Your task to perform on an android device: change the clock display to analog Image 0: 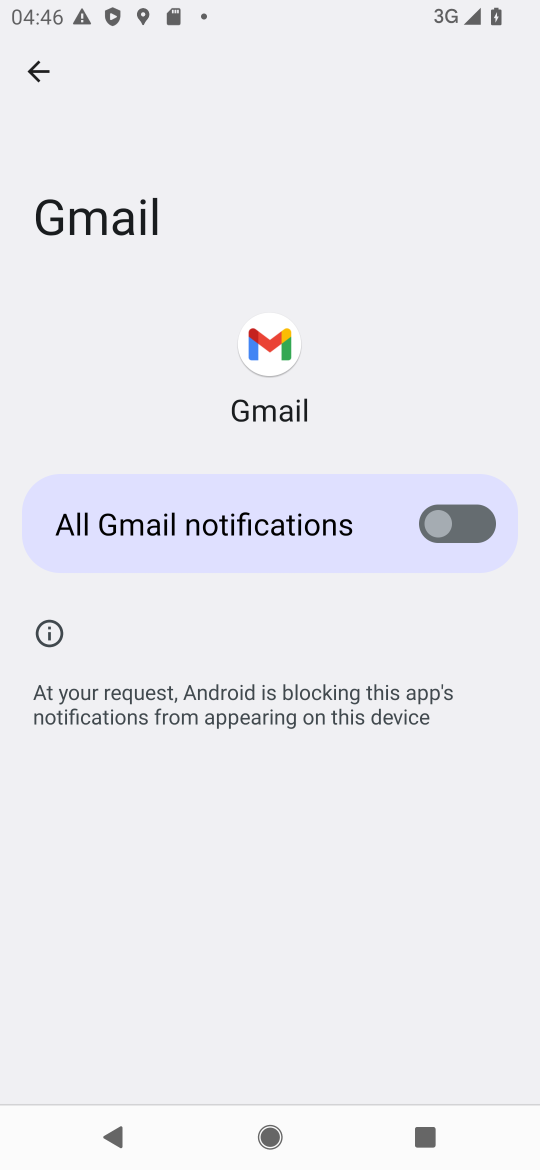
Step 0: press home button
Your task to perform on an android device: change the clock display to analog Image 1: 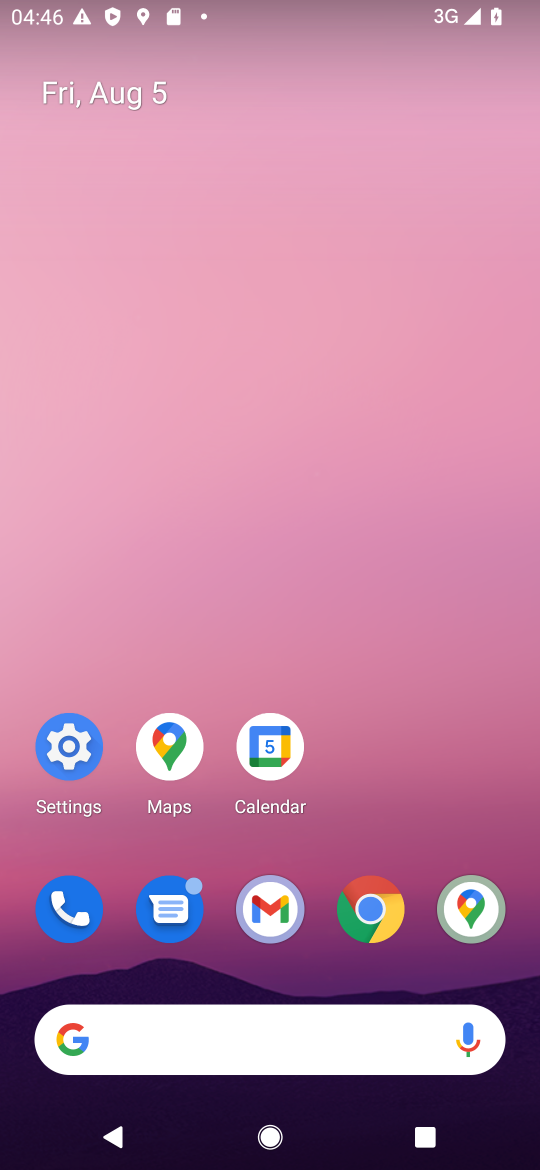
Step 1: drag from (366, 761) to (318, 0)
Your task to perform on an android device: change the clock display to analog Image 2: 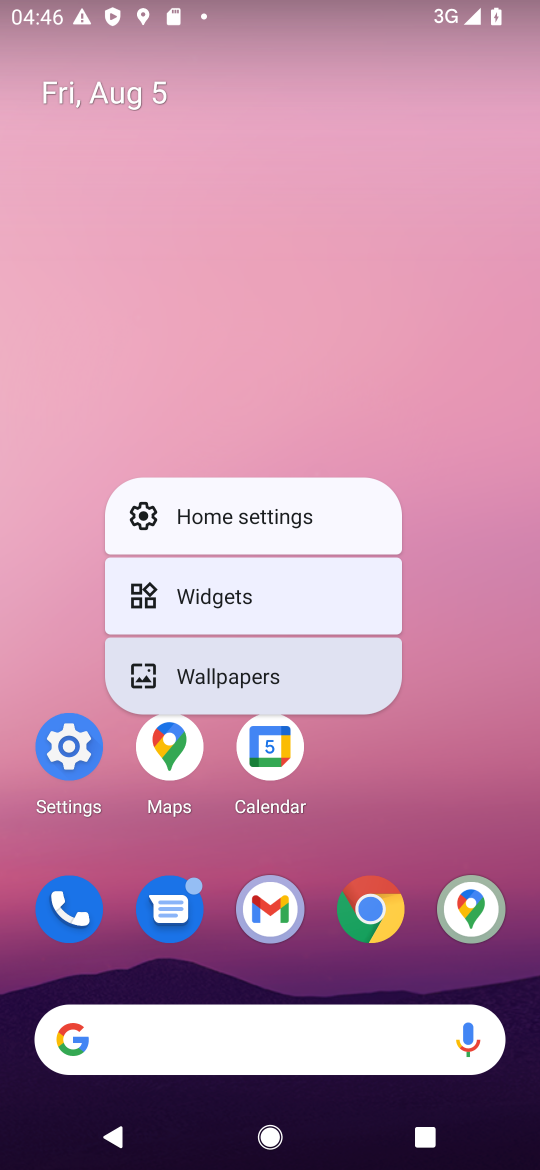
Step 2: click (366, 408)
Your task to perform on an android device: change the clock display to analog Image 3: 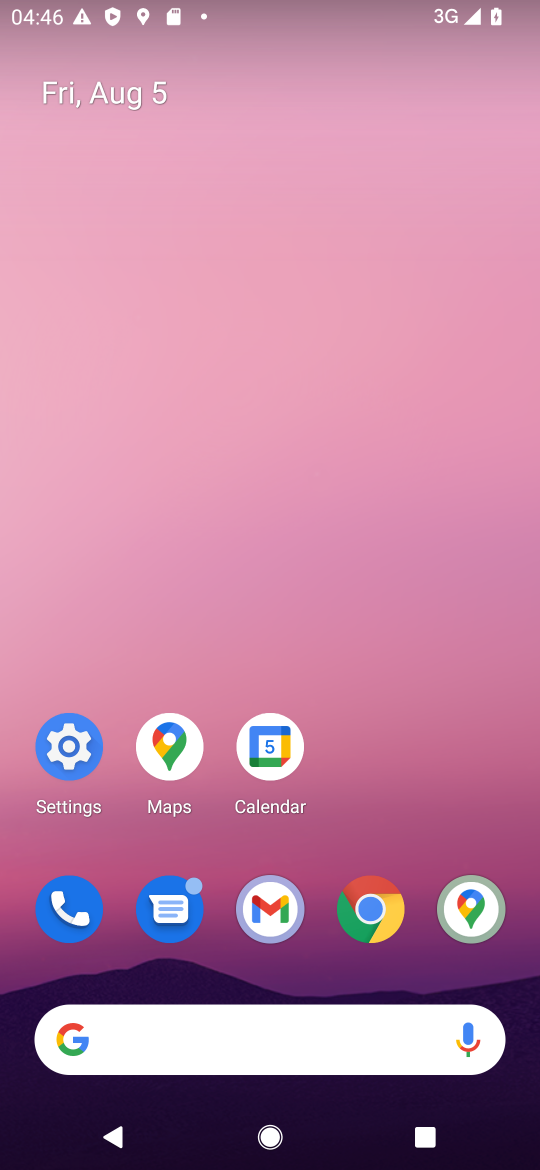
Step 3: drag from (398, 785) to (353, 186)
Your task to perform on an android device: change the clock display to analog Image 4: 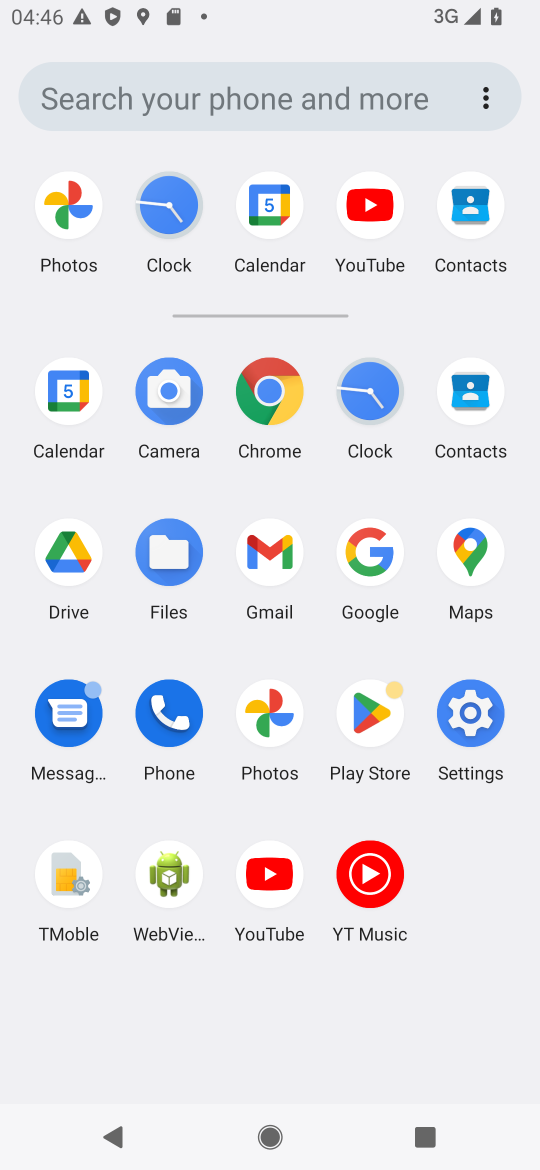
Step 4: click (378, 388)
Your task to perform on an android device: change the clock display to analog Image 5: 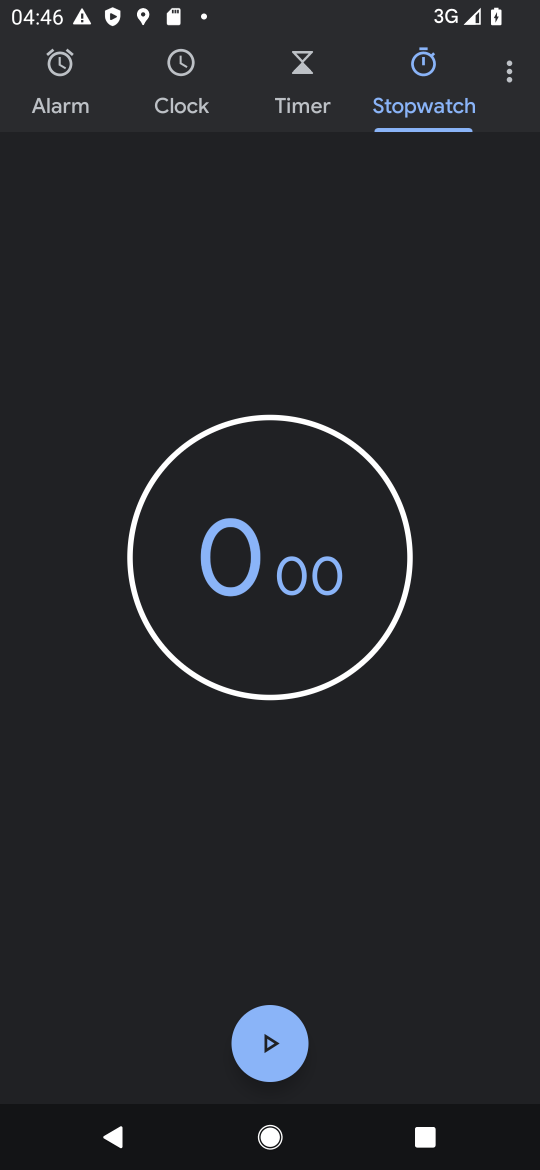
Step 5: click (509, 73)
Your task to perform on an android device: change the clock display to analog Image 6: 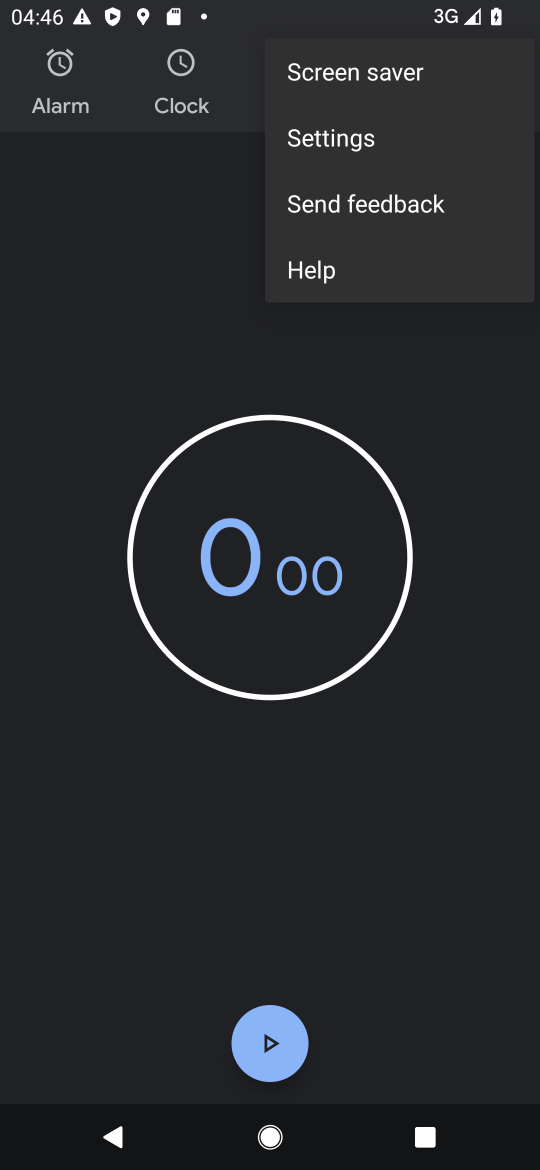
Step 6: click (331, 126)
Your task to perform on an android device: change the clock display to analog Image 7: 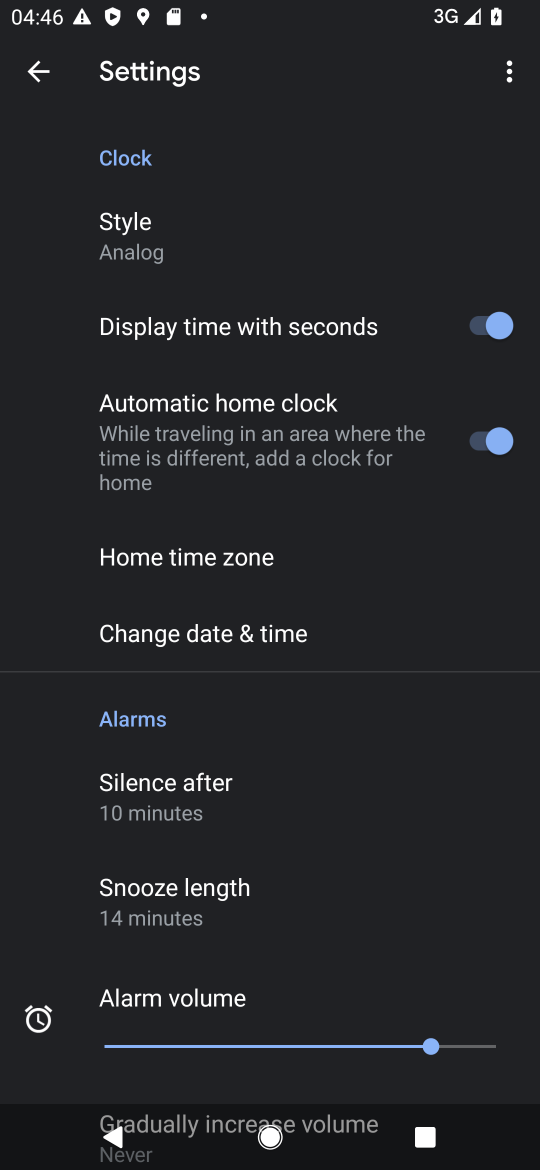
Step 7: click (149, 237)
Your task to perform on an android device: change the clock display to analog Image 8: 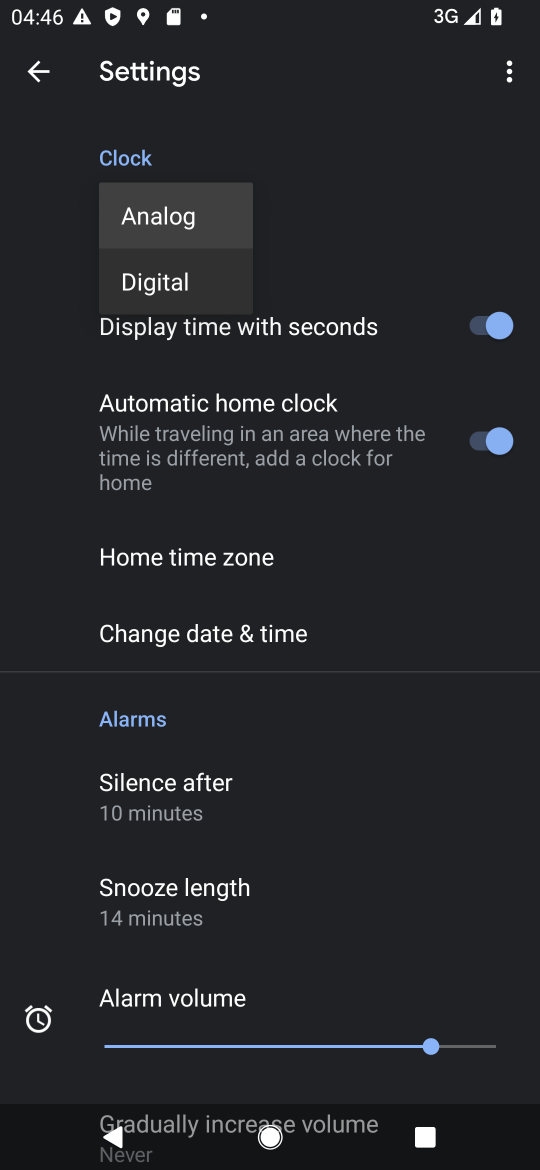
Step 8: click (186, 218)
Your task to perform on an android device: change the clock display to analog Image 9: 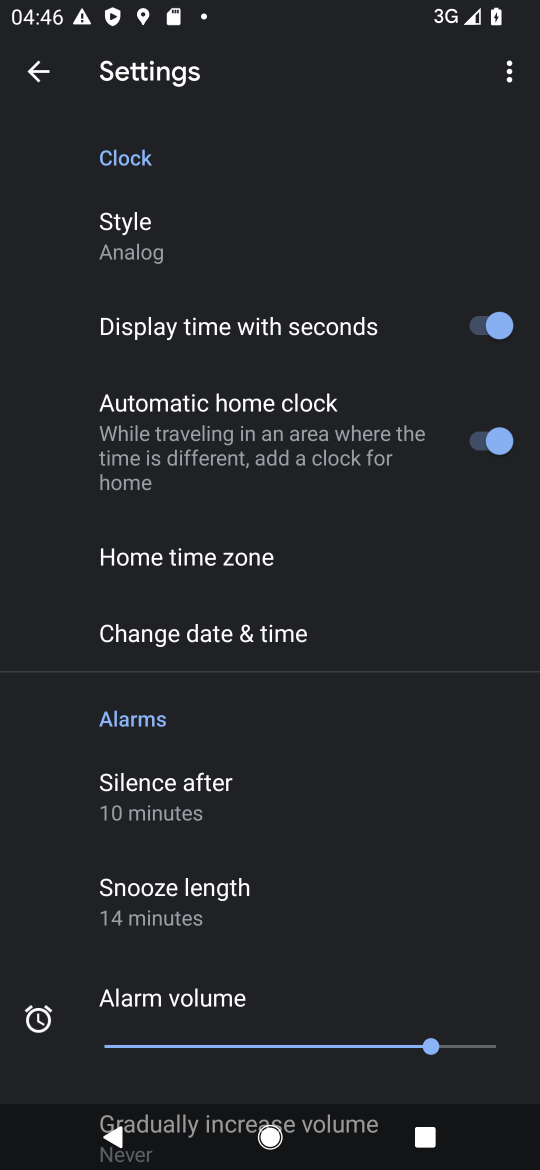
Step 9: task complete